Your task to perform on an android device: Open the calendar app, open the side menu, and click the "Day" option Image 0: 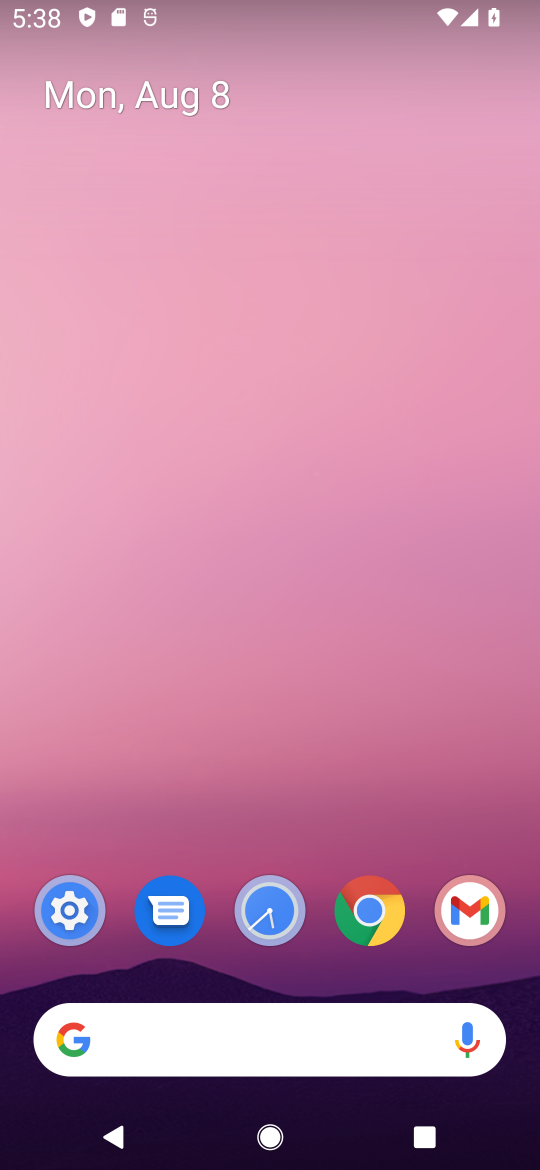
Step 0: drag from (224, 1027) to (390, 374)
Your task to perform on an android device: Open the calendar app, open the side menu, and click the "Day" option Image 1: 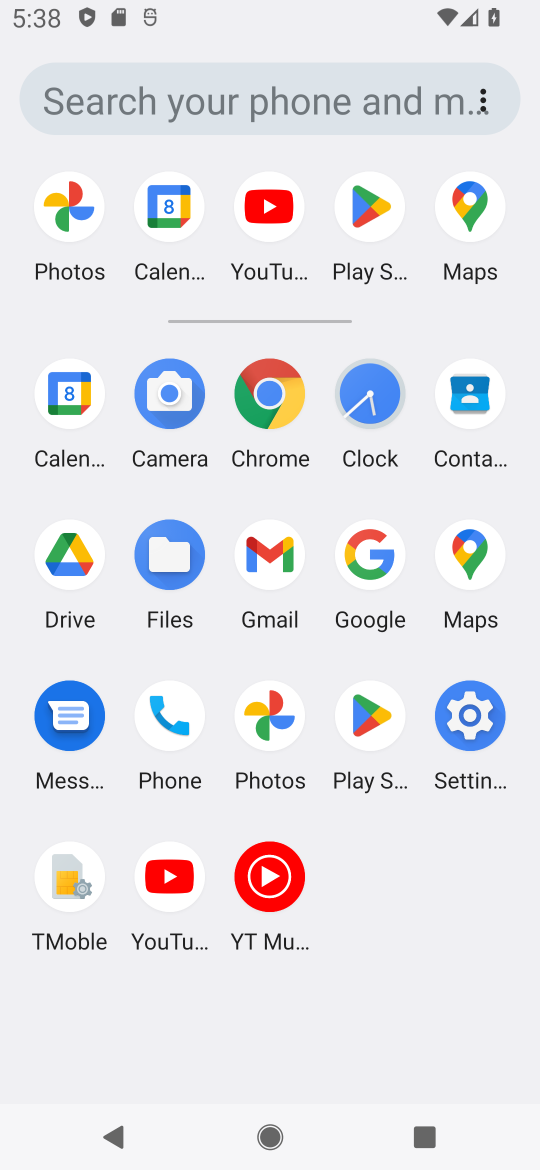
Step 1: click (70, 394)
Your task to perform on an android device: Open the calendar app, open the side menu, and click the "Day" option Image 2: 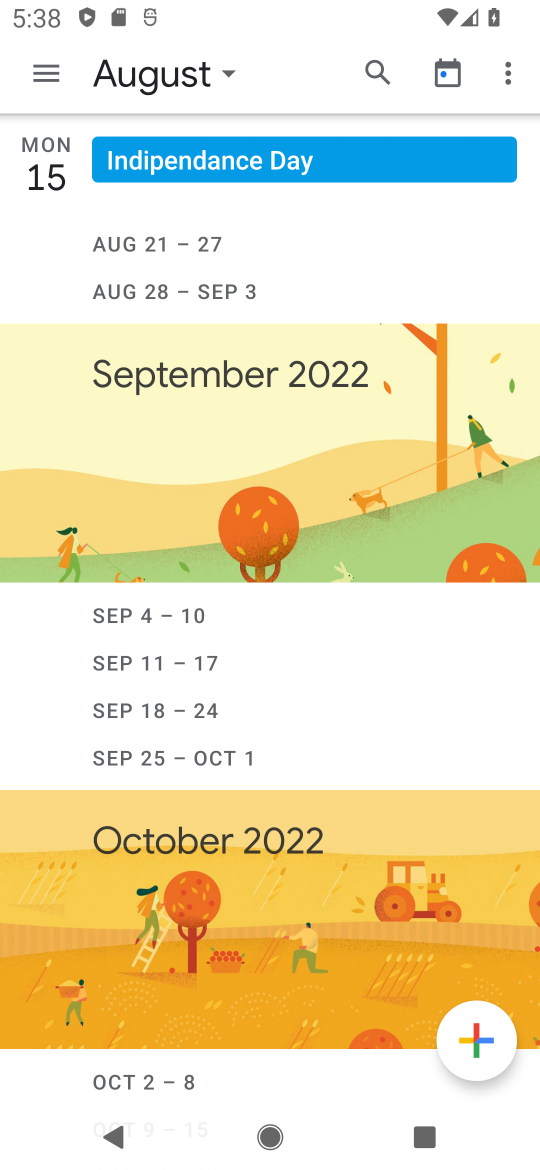
Step 2: click (51, 77)
Your task to perform on an android device: Open the calendar app, open the side menu, and click the "Day" option Image 3: 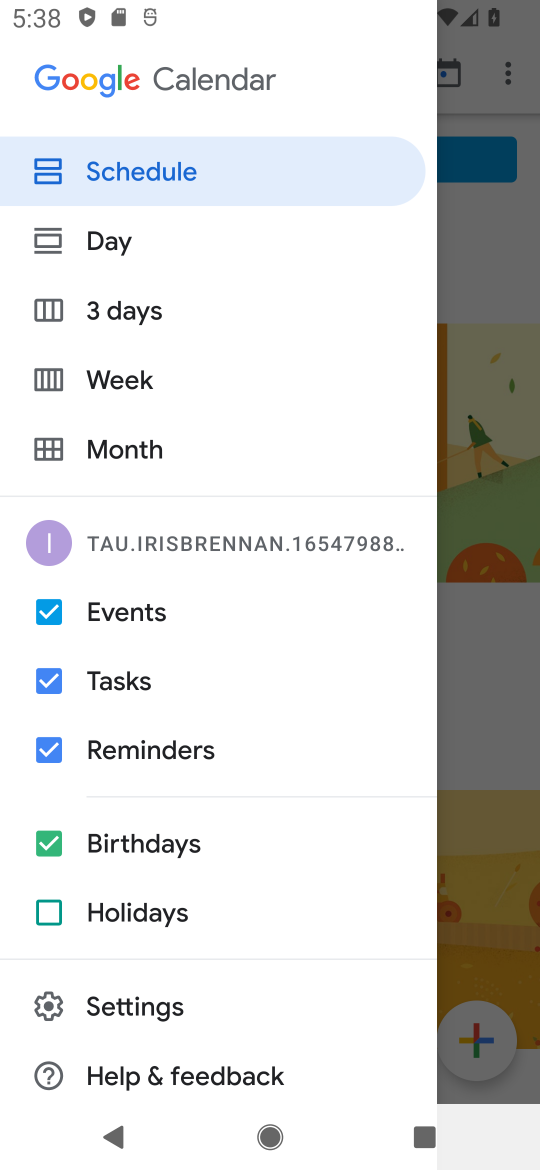
Step 3: click (103, 242)
Your task to perform on an android device: Open the calendar app, open the side menu, and click the "Day" option Image 4: 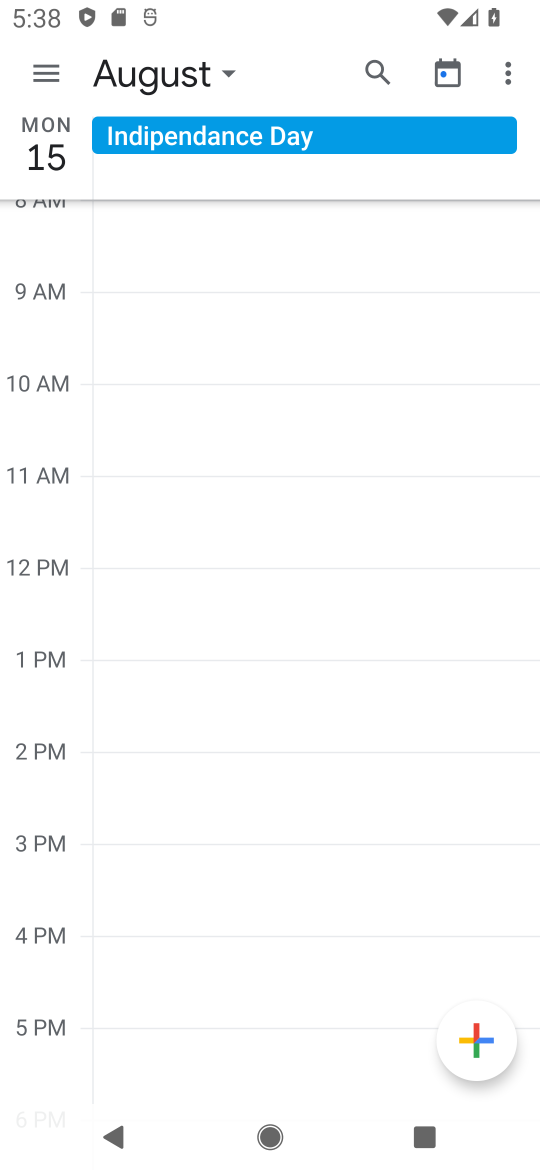
Step 4: task complete